Your task to perform on an android device: stop showing notifications on the lock screen Image 0: 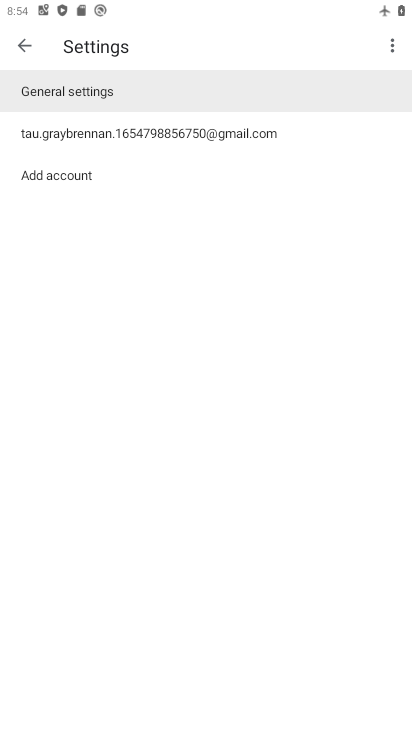
Step 0: click (192, 131)
Your task to perform on an android device: stop showing notifications on the lock screen Image 1: 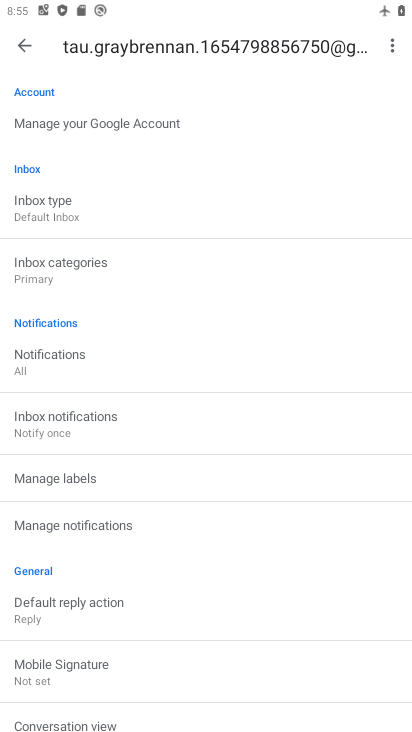
Step 1: task complete